Your task to perform on an android device: add a contact in the contacts app Image 0: 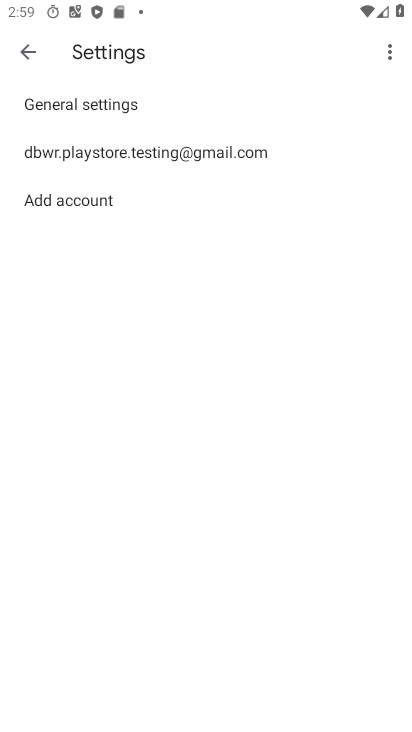
Step 0: drag from (296, 566) to (266, 156)
Your task to perform on an android device: add a contact in the contacts app Image 1: 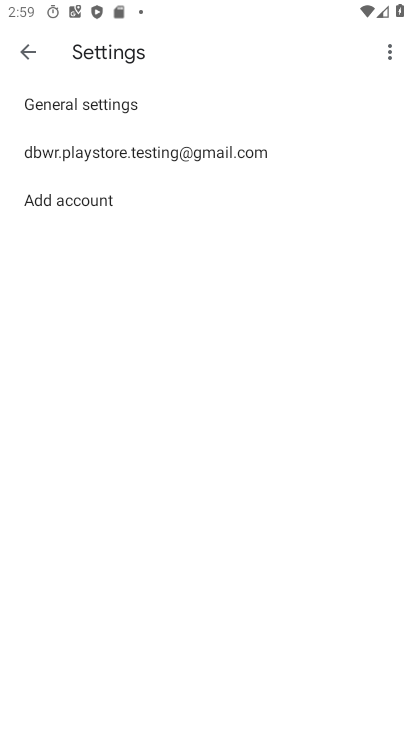
Step 1: press home button
Your task to perform on an android device: add a contact in the contacts app Image 2: 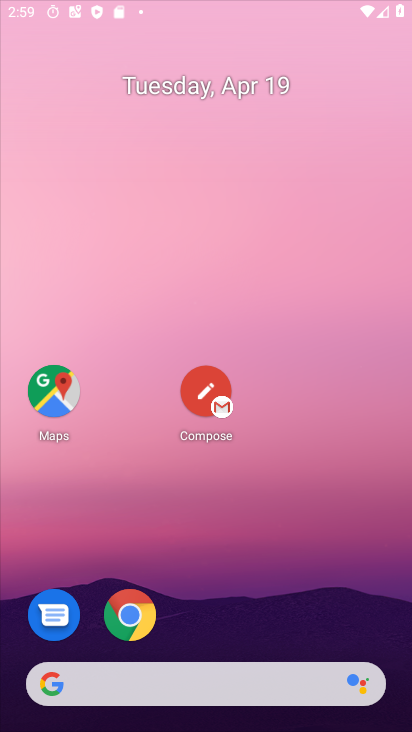
Step 2: drag from (303, 642) to (317, 85)
Your task to perform on an android device: add a contact in the contacts app Image 3: 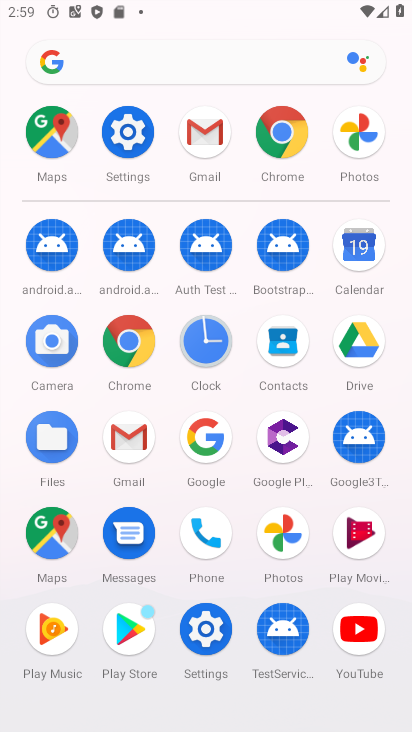
Step 3: click (279, 341)
Your task to perform on an android device: add a contact in the contacts app Image 4: 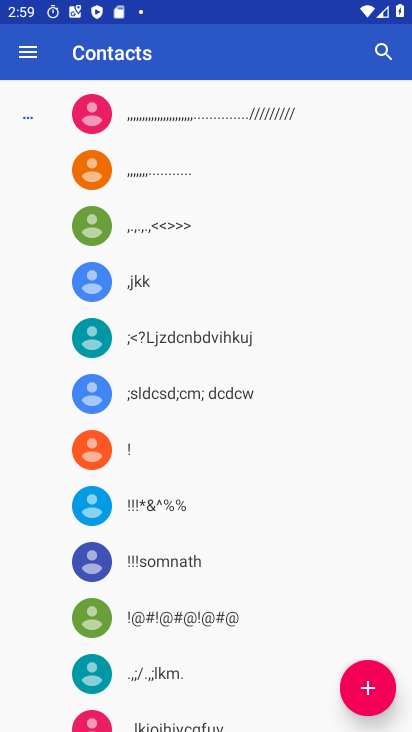
Step 4: click (352, 675)
Your task to perform on an android device: add a contact in the contacts app Image 5: 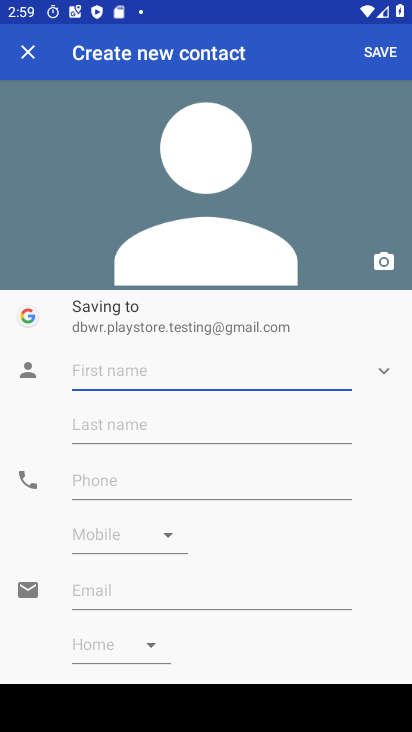
Step 5: click (166, 361)
Your task to perform on an android device: add a contact in the contacts app Image 6: 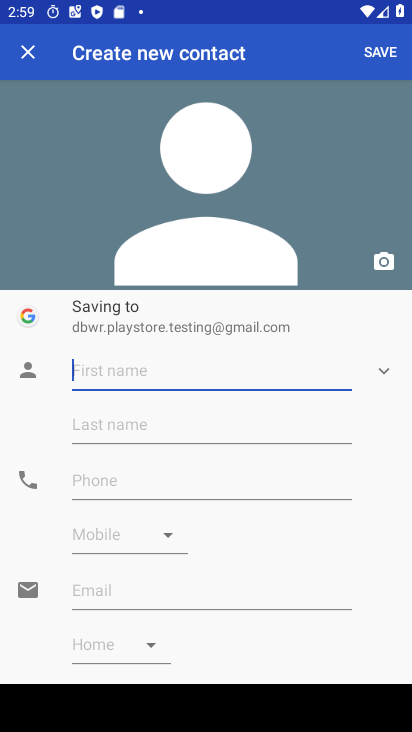
Step 6: type "hghfchfgjjh"
Your task to perform on an android device: add a contact in the contacts app Image 7: 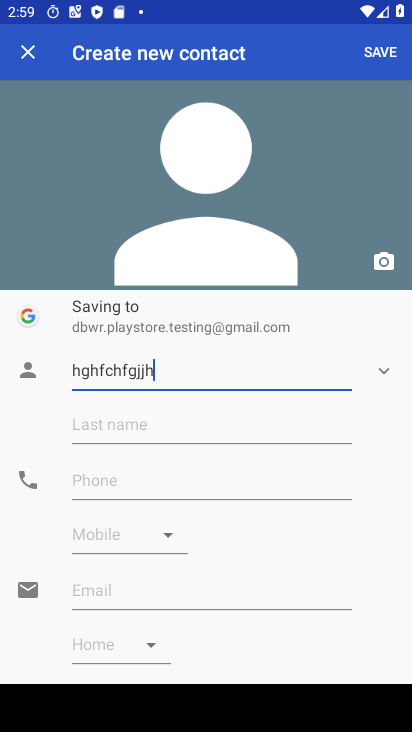
Step 7: click (93, 481)
Your task to perform on an android device: add a contact in the contacts app Image 8: 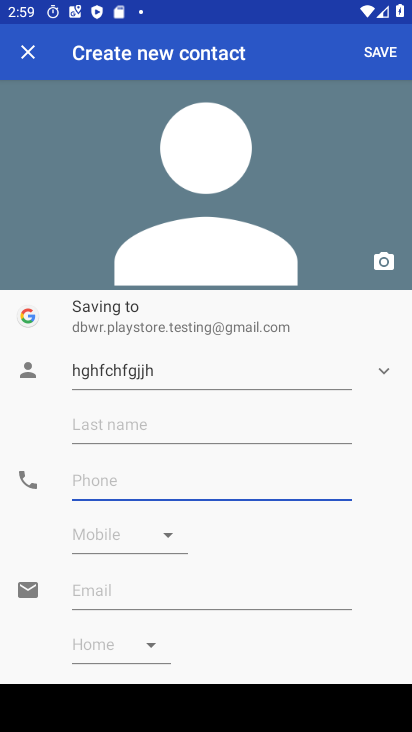
Step 8: type "86546789988"
Your task to perform on an android device: add a contact in the contacts app Image 9: 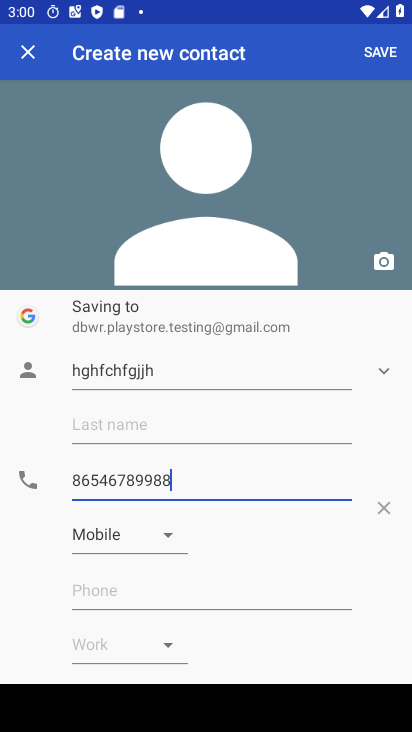
Step 9: click (393, 48)
Your task to perform on an android device: add a contact in the contacts app Image 10: 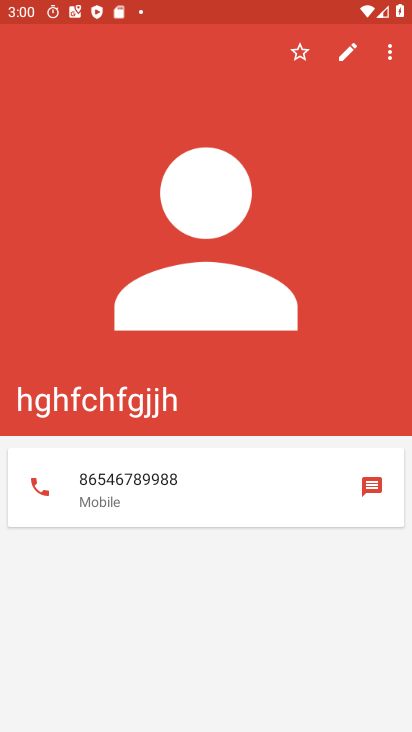
Step 10: task complete